Your task to perform on an android device: turn off translation in the chrome app Image 0: 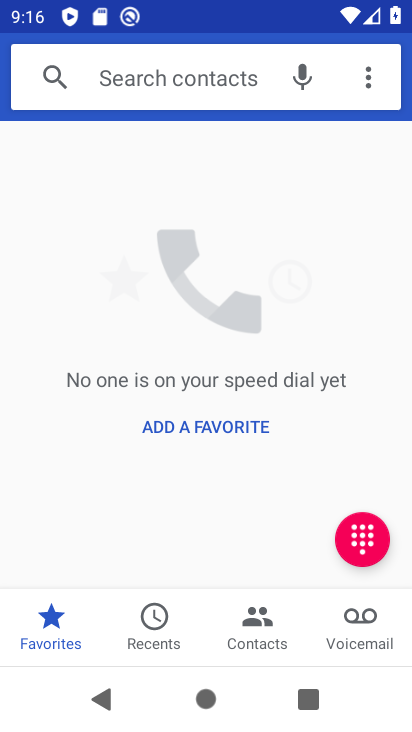
Step 0: press home button
Your task to perform on an android device: turn off translation in the chrome app Image 1: 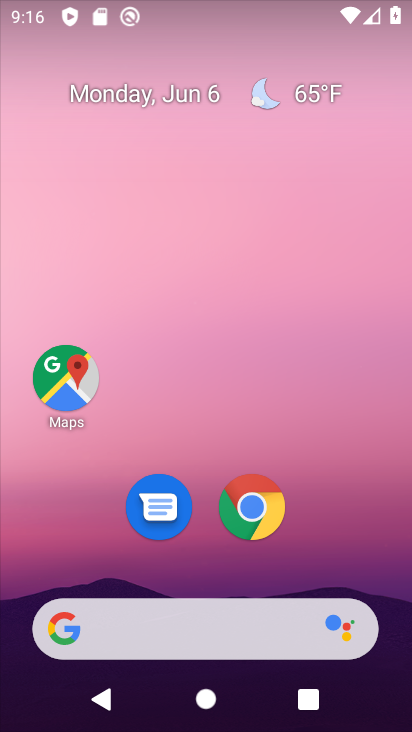
Step 1: click (248, 490)
Your task to perform on an android device: turn off translation in the chrome app Image 2: 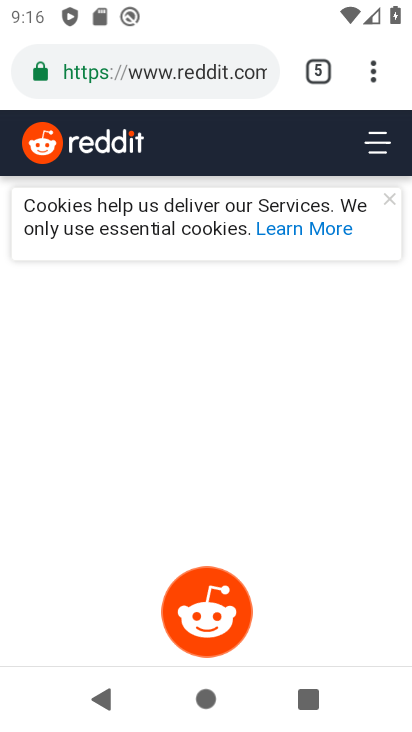
Step 2: click (371, 70)
Your task to perform on an android device: turn off translation in the chrome app Image 3: 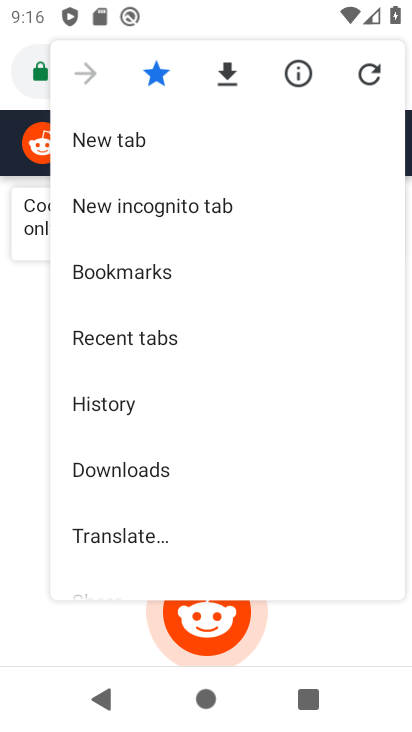
Step 3: drag from (126, 463) to (177, 201)
Your task to perform on an android device: turn off translation in the chrome app Image 4: 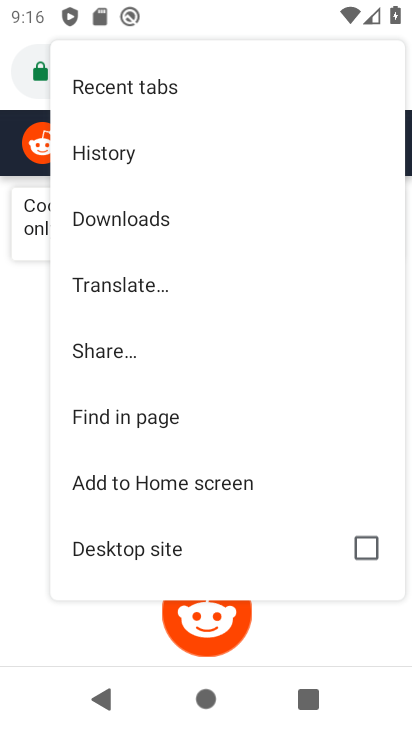
Step 4: drag from (150, 478) to (187, 306)
Your task to perform on an android device: turn off translation in the chrome app Image 5: 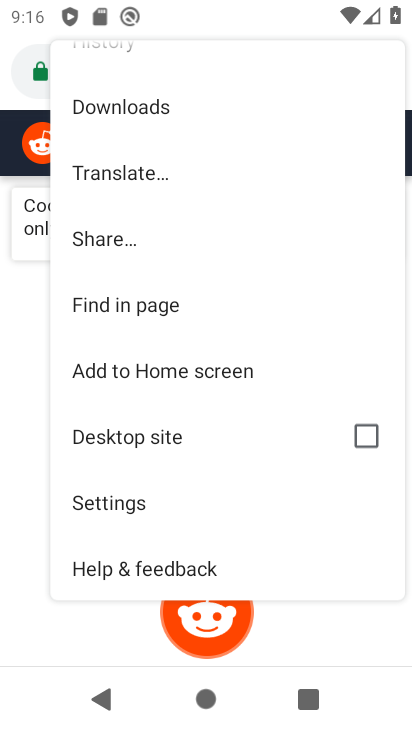
Step 5: click (136, 504)
Your task to perform on an android device: turn off translation in the chrome app Image 6: 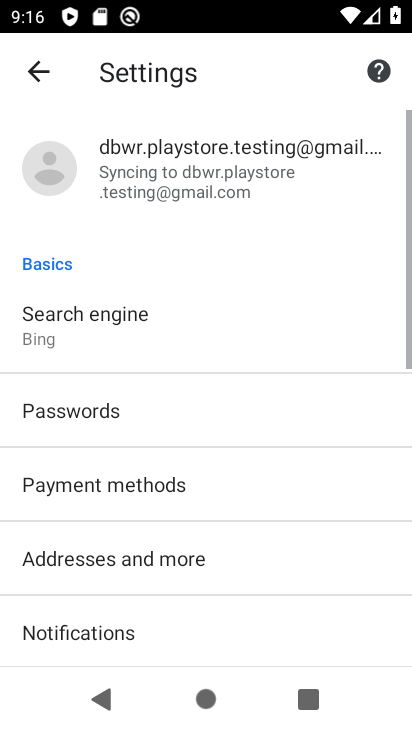
Step 6: drag from (194, 607) to (258, 224)
Your task to perform on an android device: turn off translation in the chrome app Image 7: 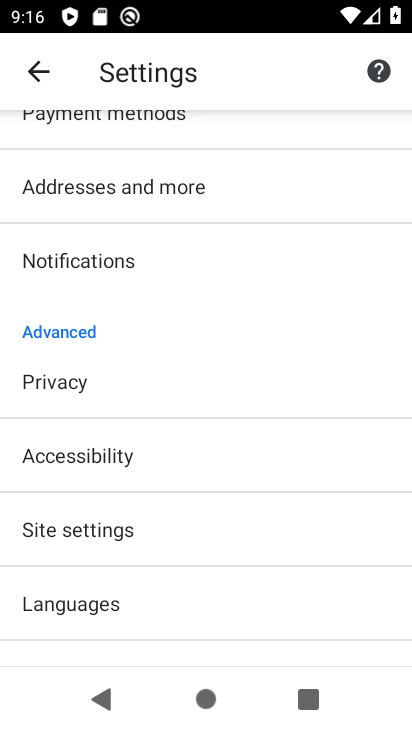
Step 7: click (97, 613)
Your task to perform on an android device: turn off translation in the chrome app Image 8: 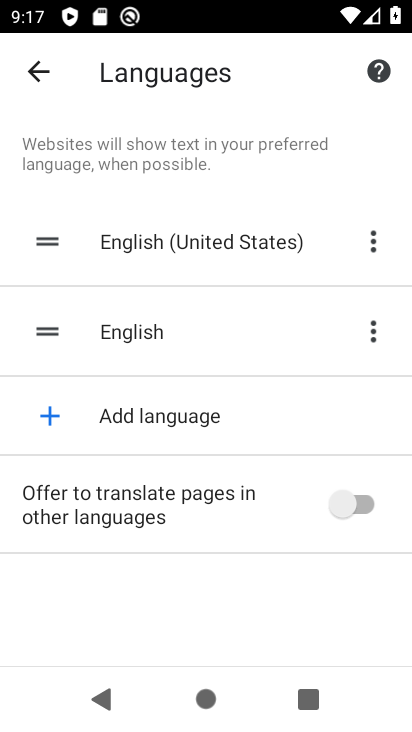
Step 8: task complete